Your task to perform on an android device: install app "Pinterest" Image 0: 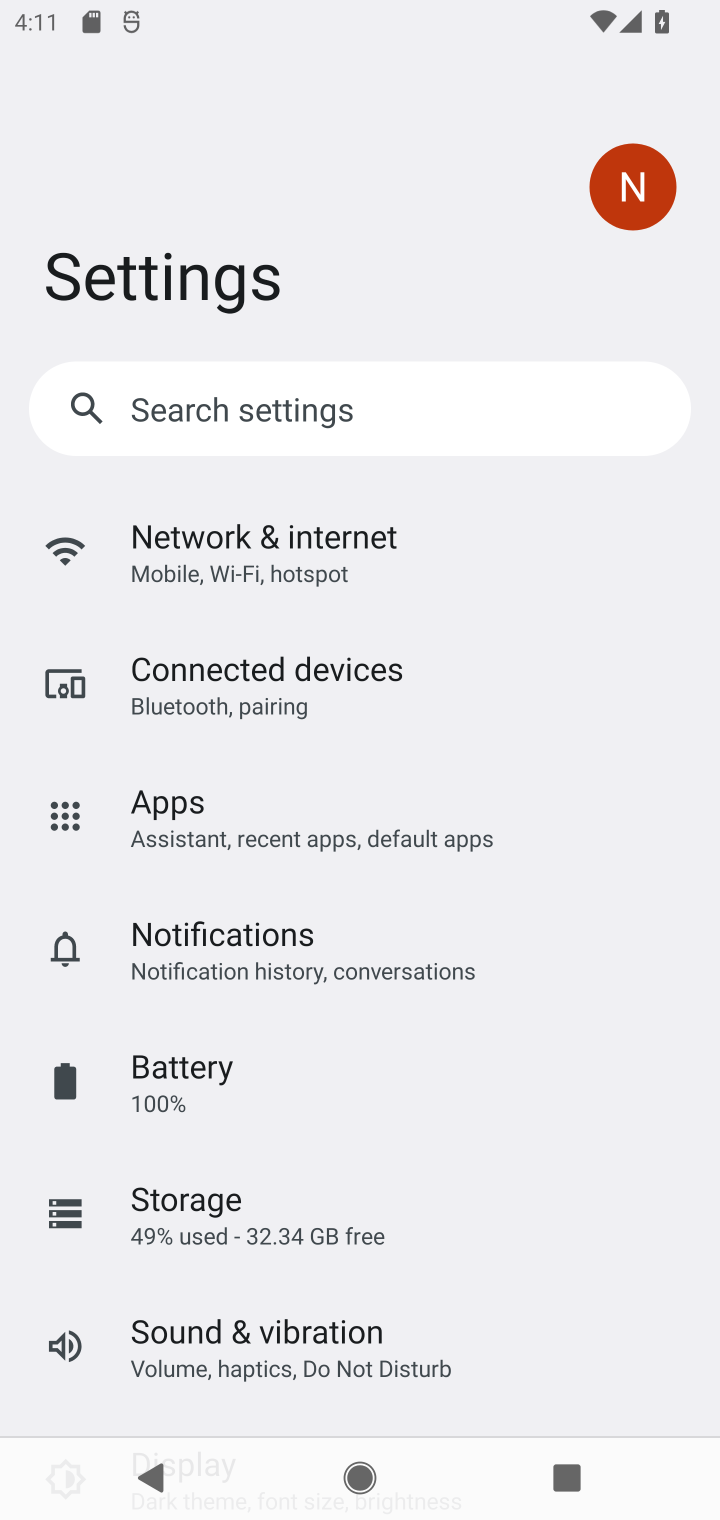
Step 0: press home button
Your task to perform on an android device: install app "Pinterest" Image 1: 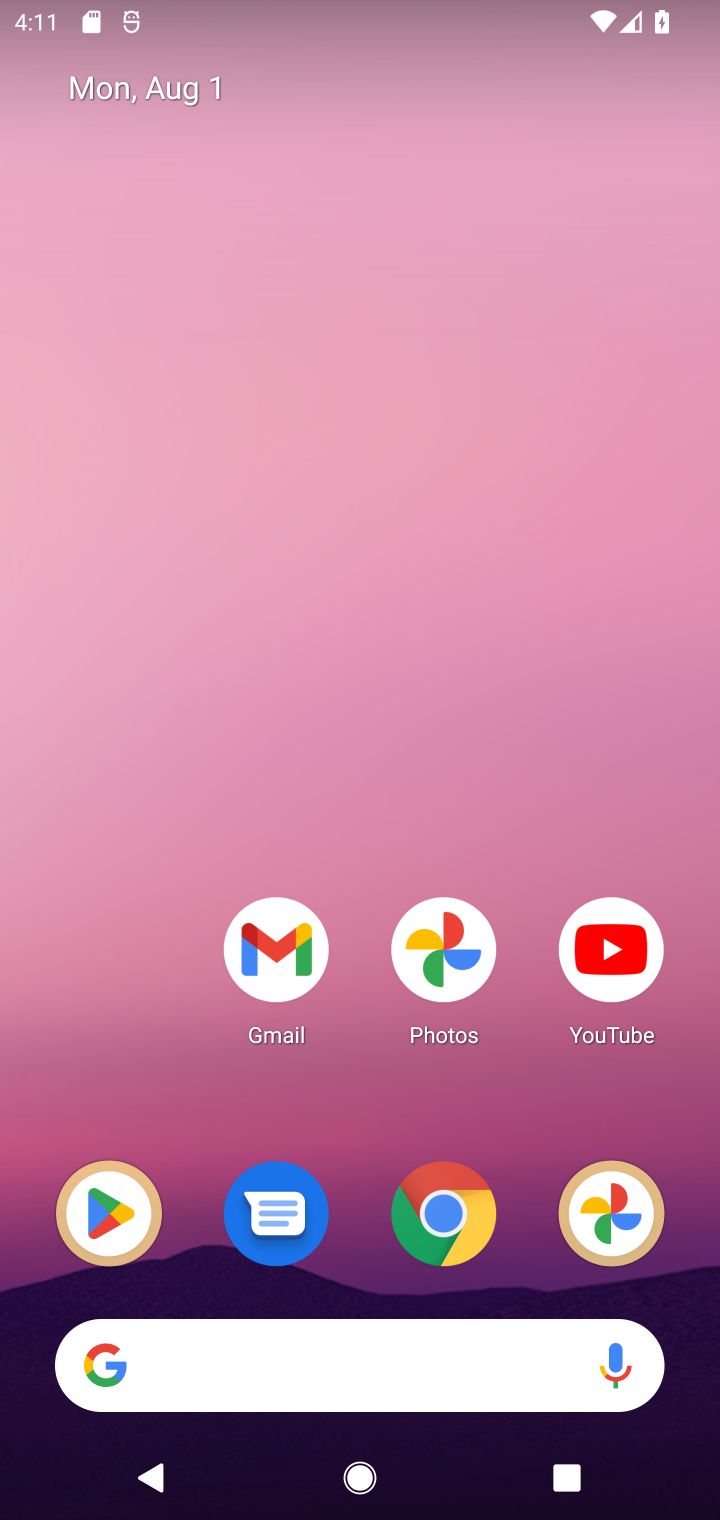
Step 1: drag from (566, 886) to (541, 59)
Your task to perform on an android device: install app "Pinterest" Image 2: 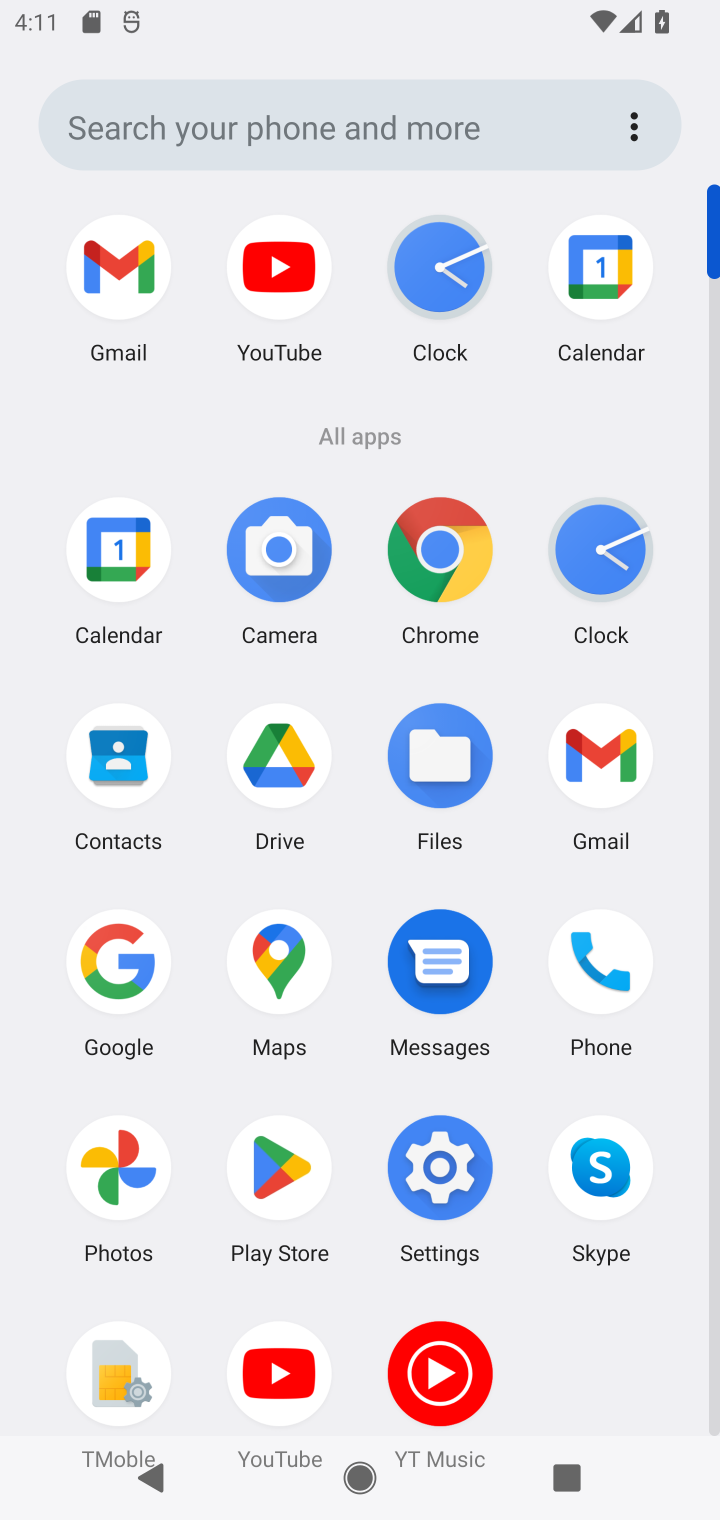
Step 2: click (278, 1169)
Your task to perform on an android device: install app "Pinterest" Image 3: 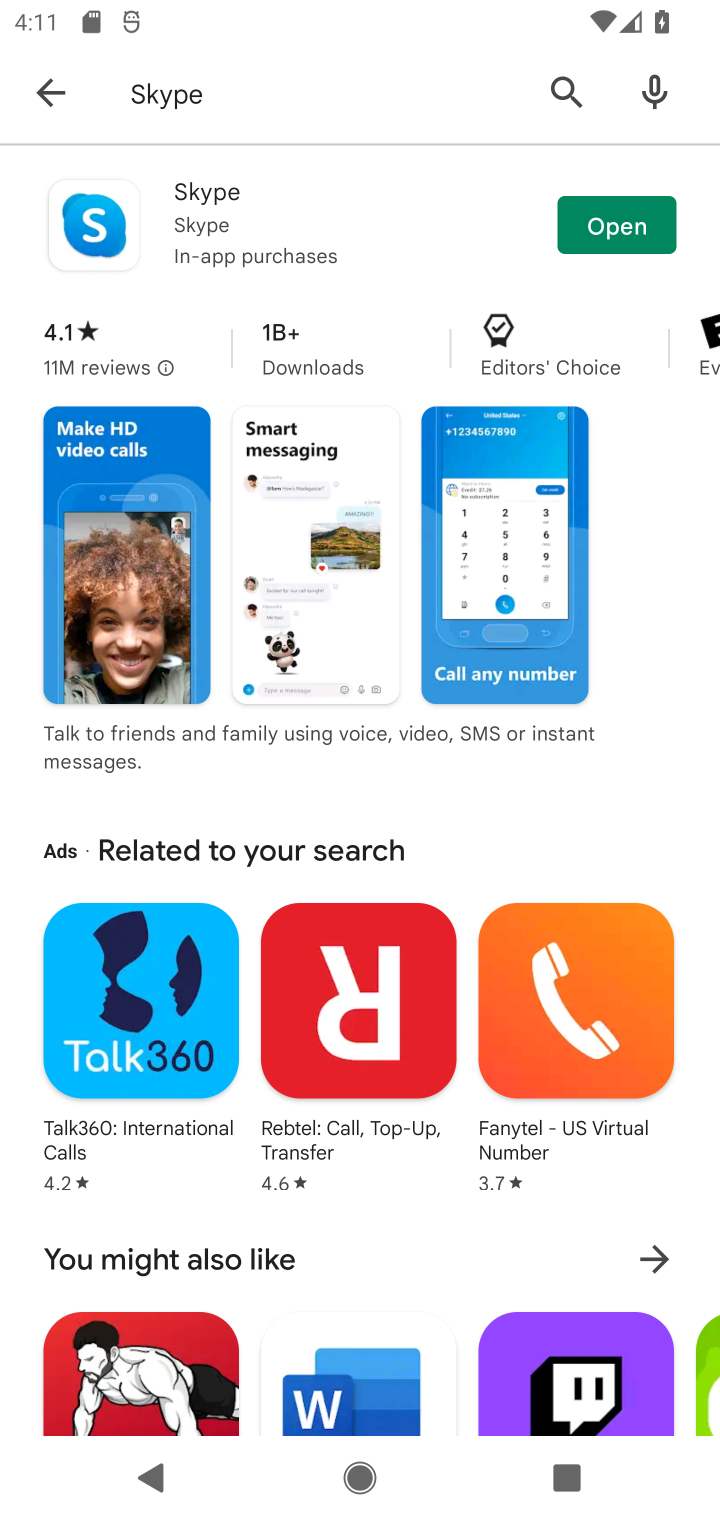
Step 3: click (285, 85)
Your task to perform on an android device: install app "Pinterest" Image 4: 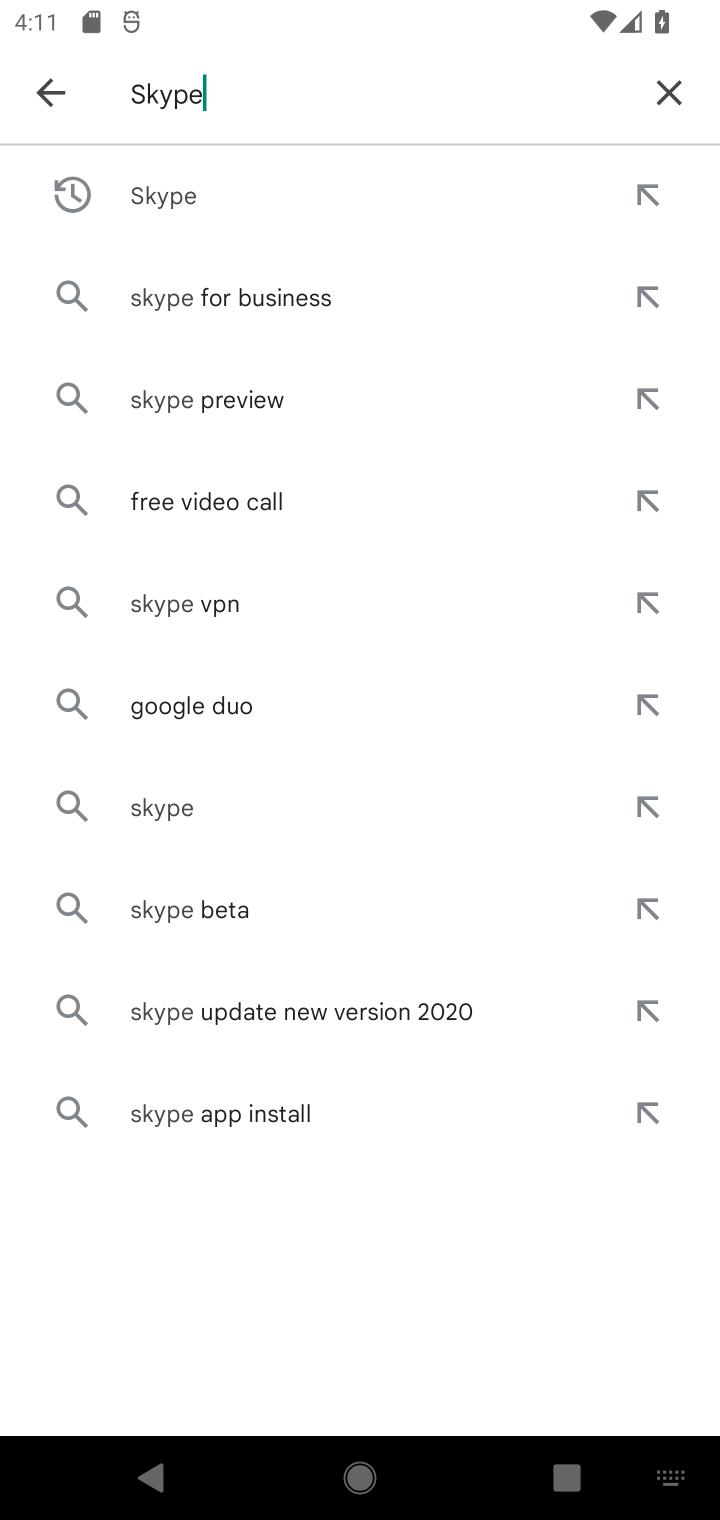
Step 4: click (678, 83)
Your task to perform on an android device: install app "Pinterest" Image 5: 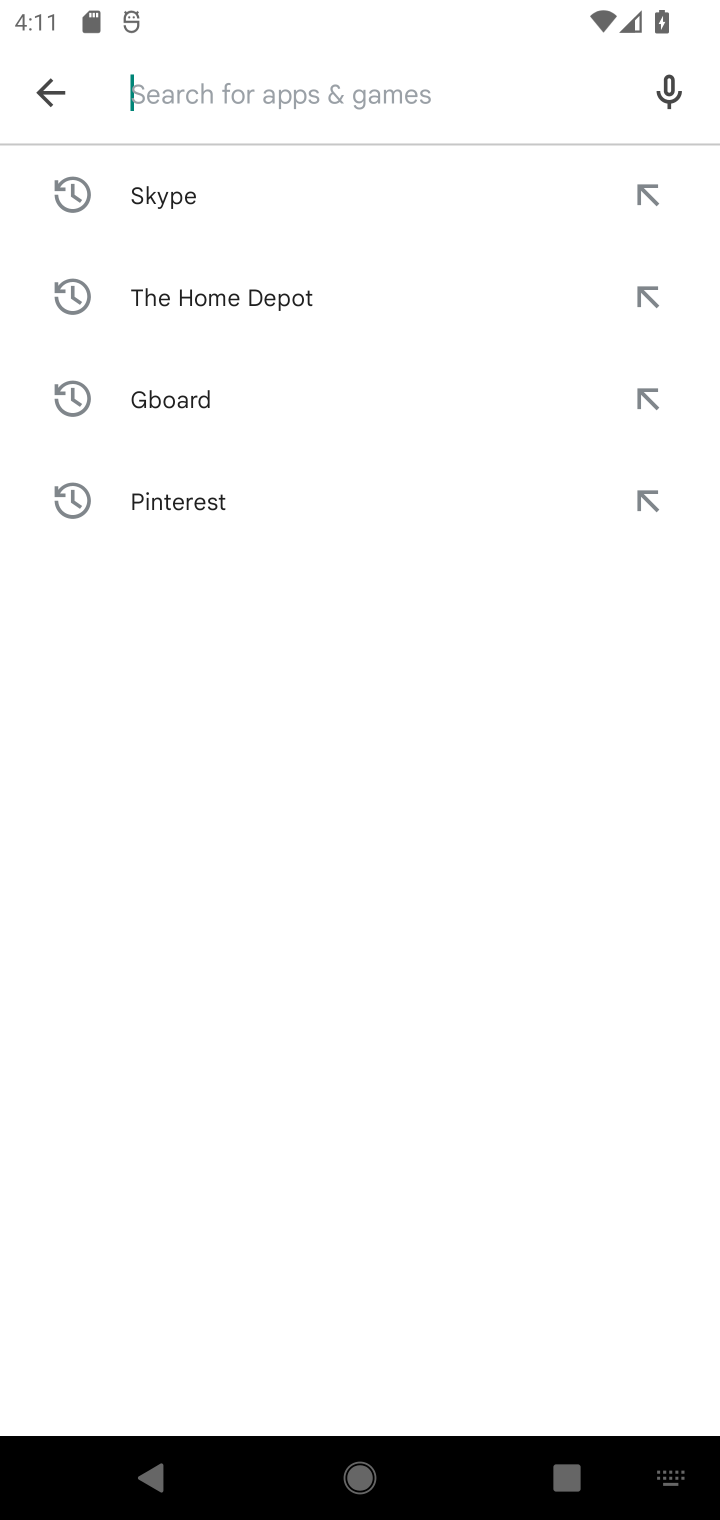
Step 5: type "Pinterest"
Your task to perform on an android device: install app "Pinterest" Image 6: 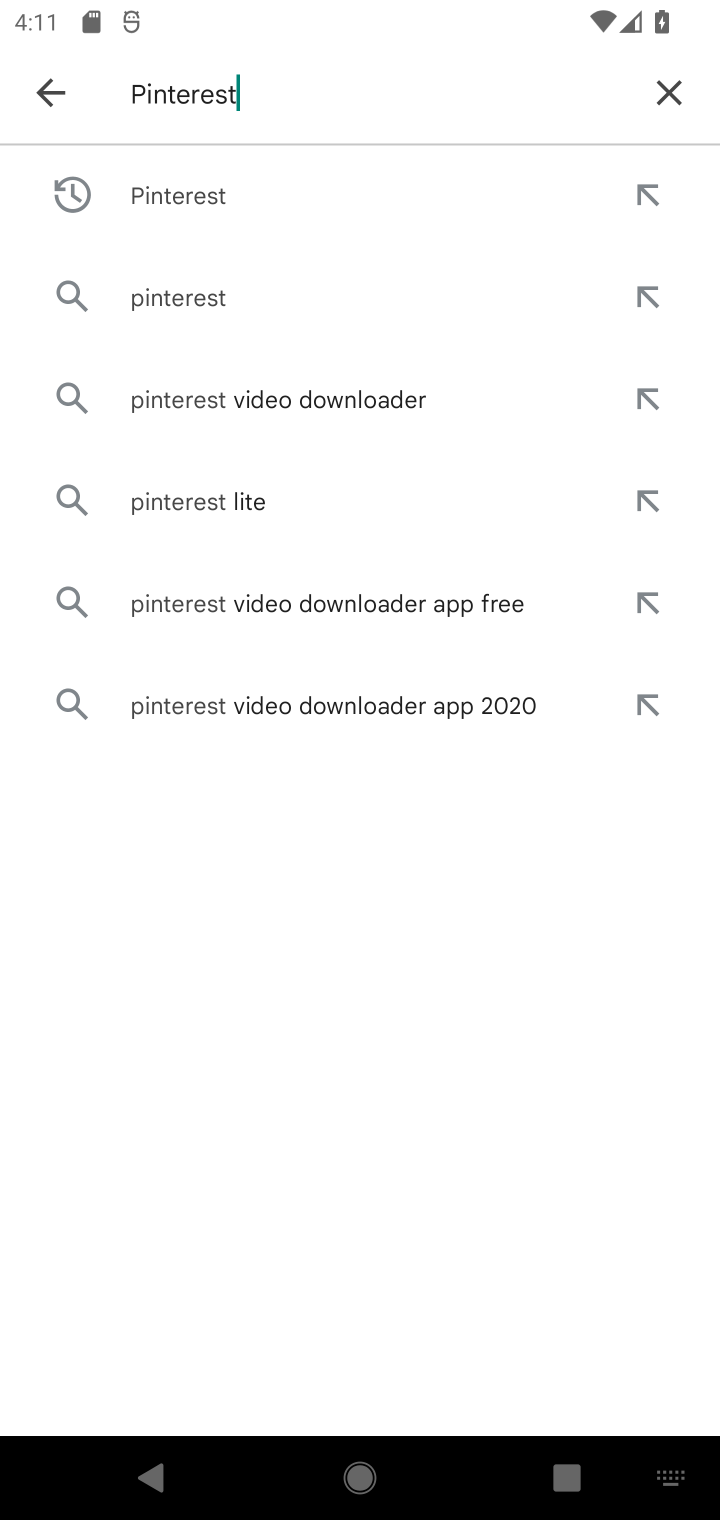
Step 6: press enter
Your task to perform on an android device: install app "Pinterest" Image 7: 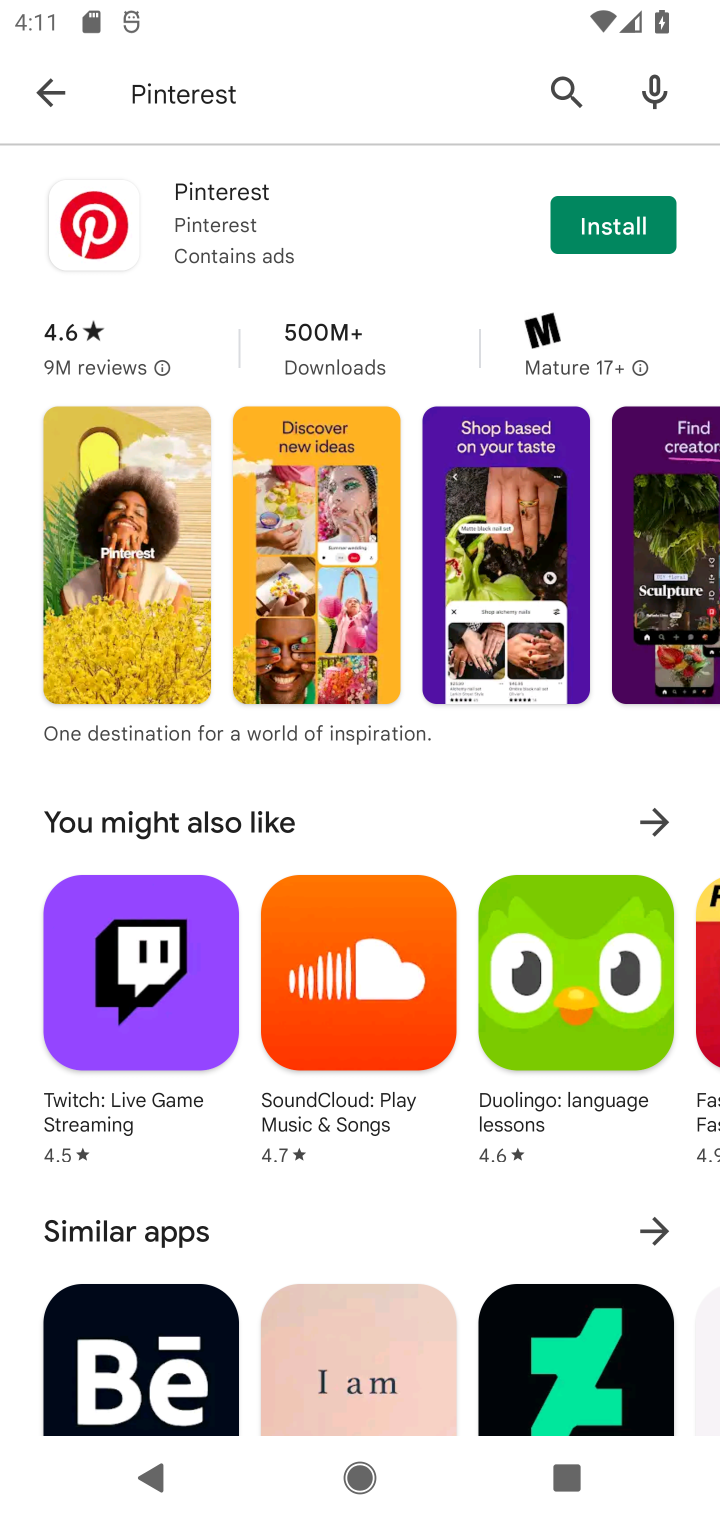
Step 7: click (614, 222)
Your task to perform on an android device: install app "Pinterest" Image 8: 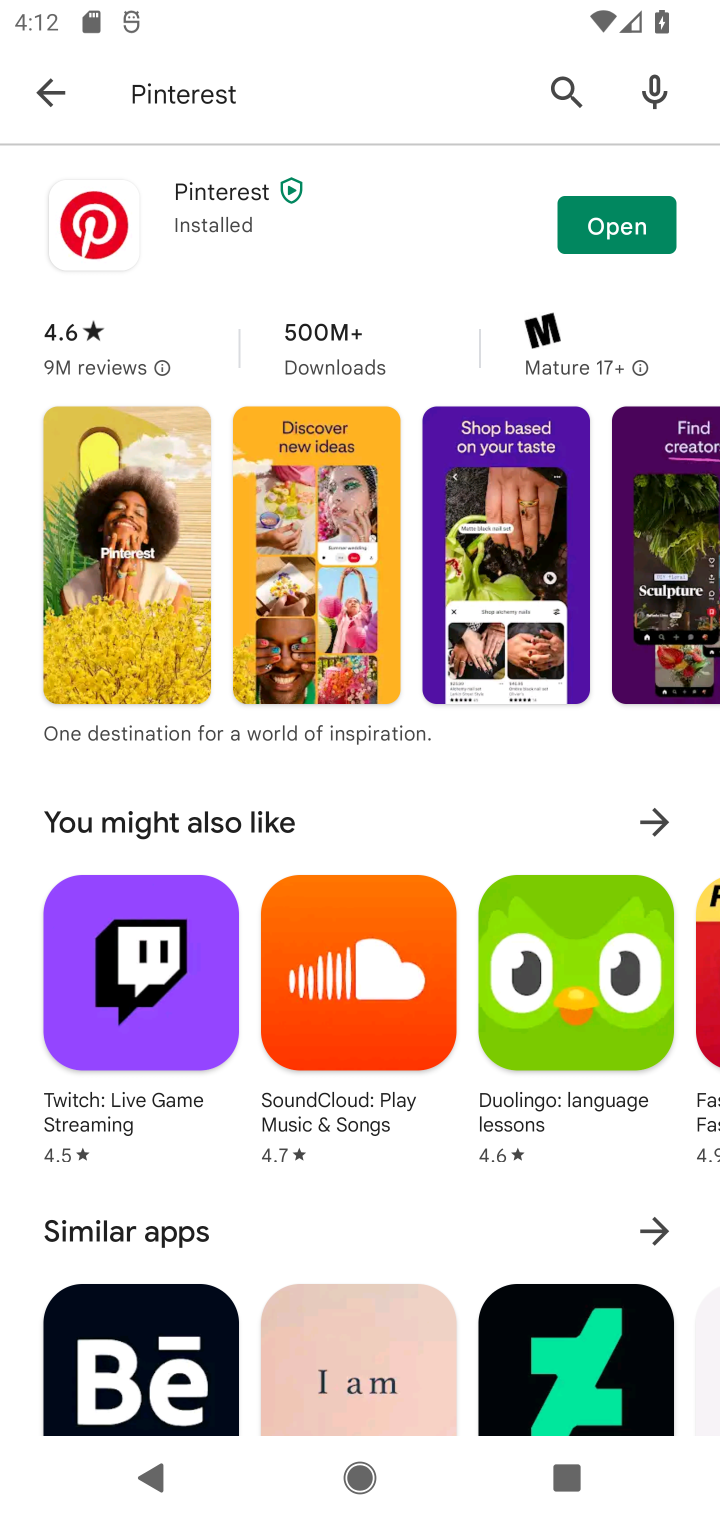
Step 8: task complete